Your task to perform on an android device: Go to privacy settings Image 0: 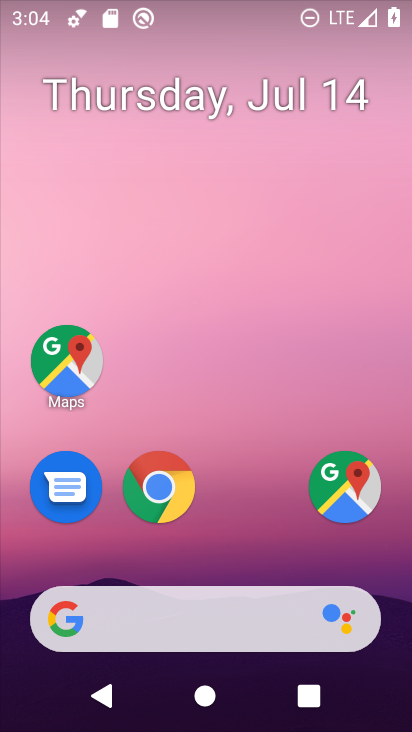
Step 0: drag from (271, 543) to (296, 118)
Your task to perform on an android device: Go to privacy settings Image 1: 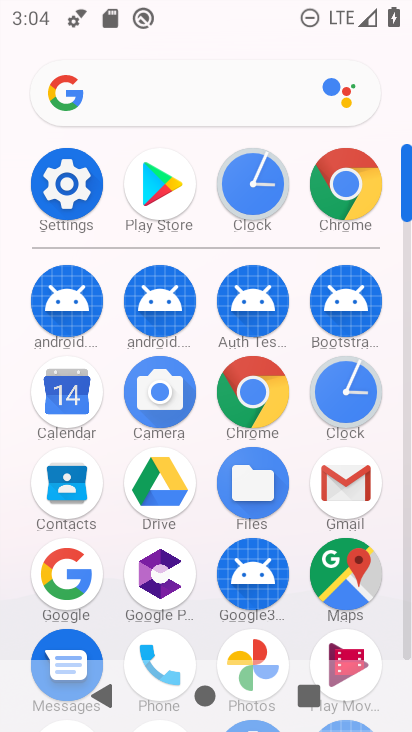
Step 1: click (74, 211)
Your task to perform on an android device: Go to privacy settings Image 2: 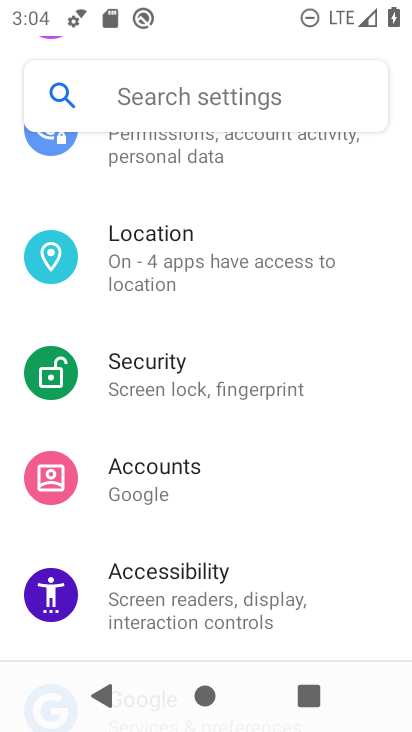
Step 2: drag from (334, 301) to (353, 457)
Your task to perform on an android device: Go to privacy settings Image 3: 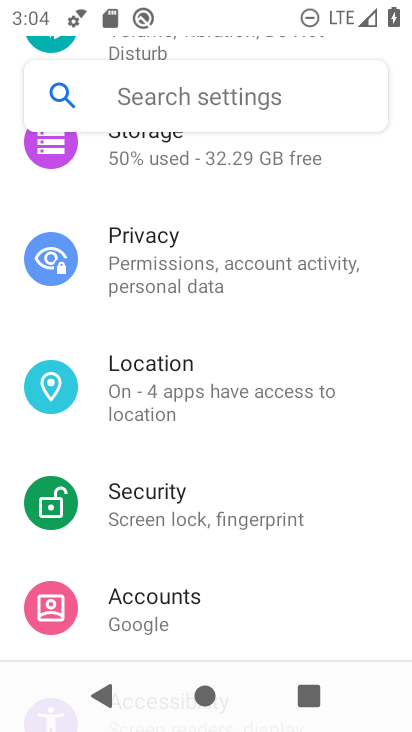
Step 3: drag from (343, 528) to (361, 343)
Your task to perform on an android device: Go to privacy settings Image 4: 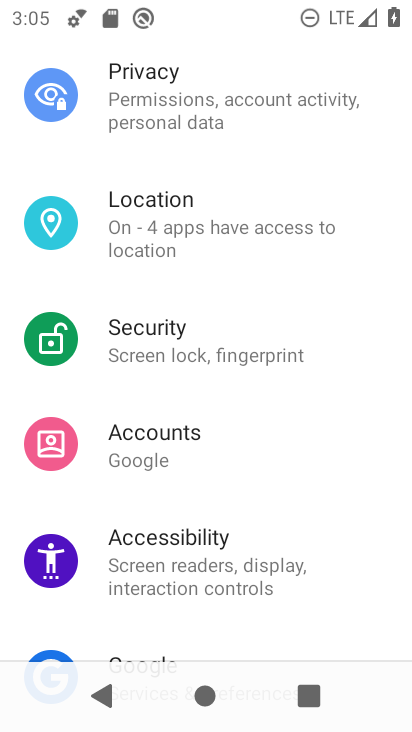
Step 4: drag from (337, 304) to (353, 444)
Your task to perform on an android device: Go to privacy settings Image 5: 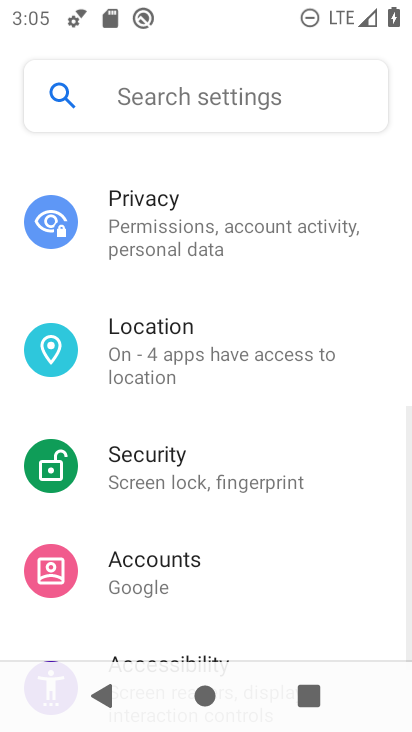
Step 5: drag from (340, 297) to (349, 443)
Your task to perform on an android device: Go to privacy settings Image 6: 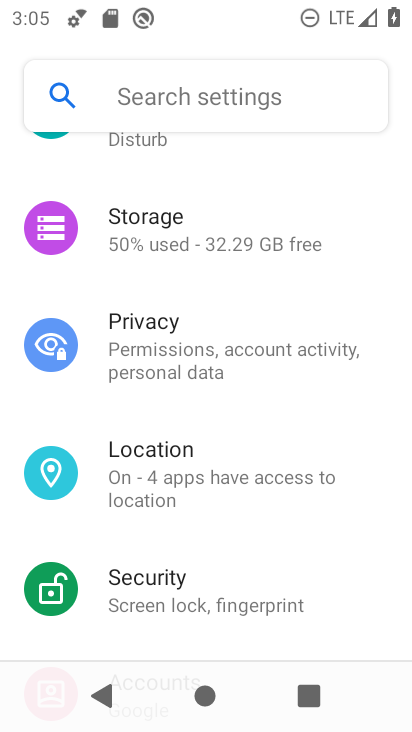
Step 6: click (330, 338)
Your task to perform on an android device: Go to privacy settings Image 7: 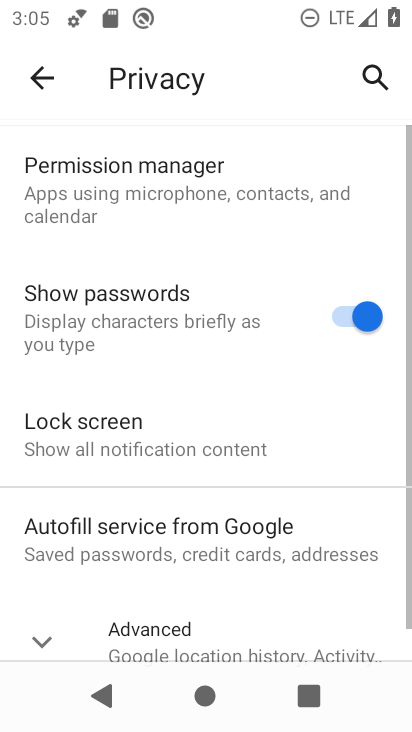
Step 7: drag from (337, 451) to (335, 386)
Your task to perform on an android device: Go to privacy settings Image 8: 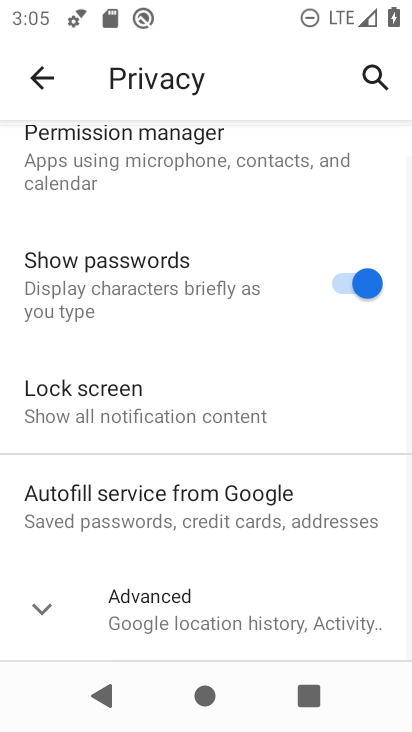
Step 8: click (305, 579)
Your task to perform on an android device: Go to privacy settings Image 9: 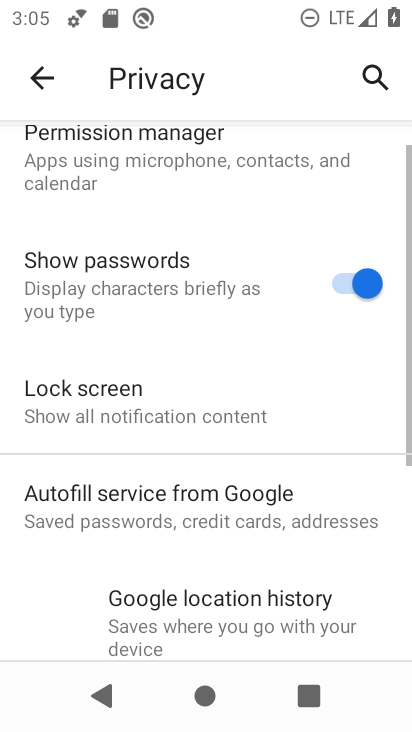
Step 9: task complete